Your task to perform on an android device: turn notification dots off Image 0: 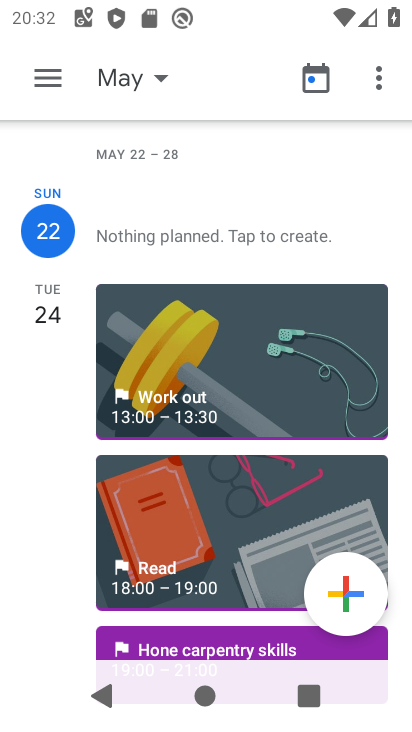
Step 0: press home button
Your task to perform on an android device: turn notification dots off Image 1: 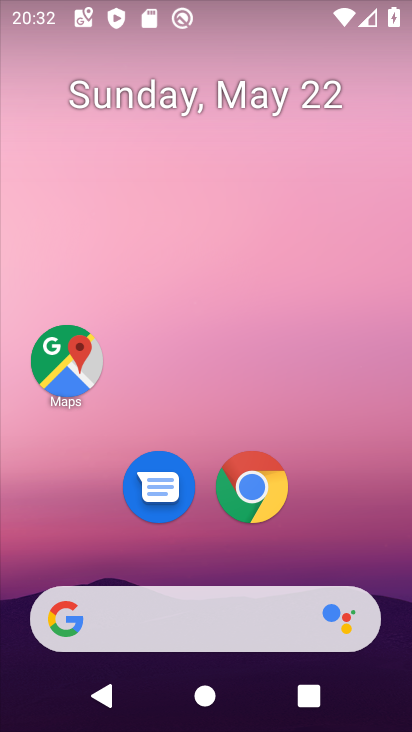
Step 1: drag from (205, 541) to (222, 89)
Your task to perform on an android device: turn notification dots off Image 2: 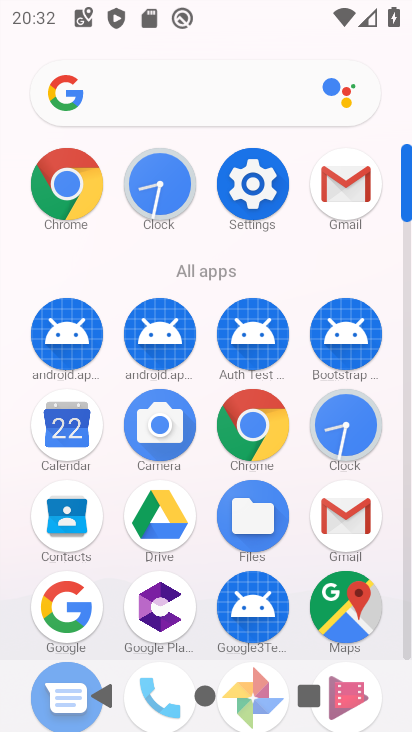
Step 2: click (246, 179)
Your task to perform on an android device: turn notification dots off Image 3: 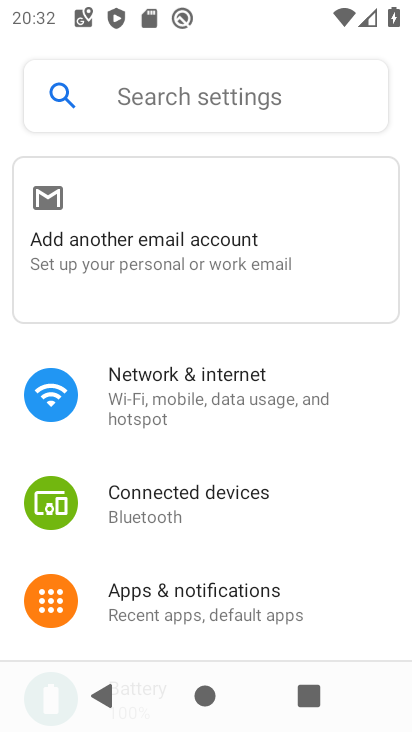
Step 3: click (168, 611)
Your task to perform on an android device: turn notification dots off Image 4: 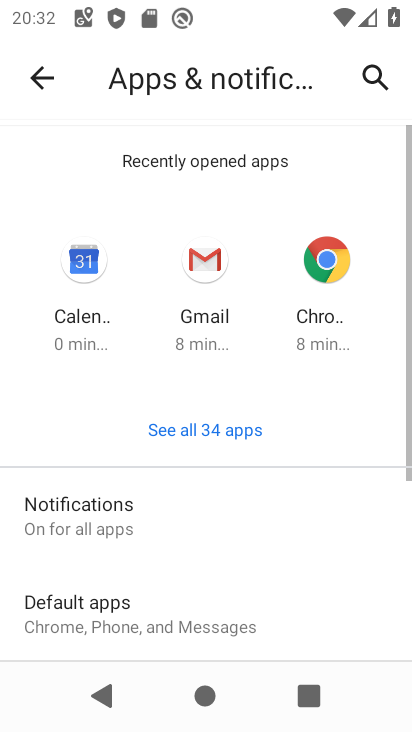
Step 4: click (125, 510)
Your task to perform on an android device: turn notification dots off Image 5: 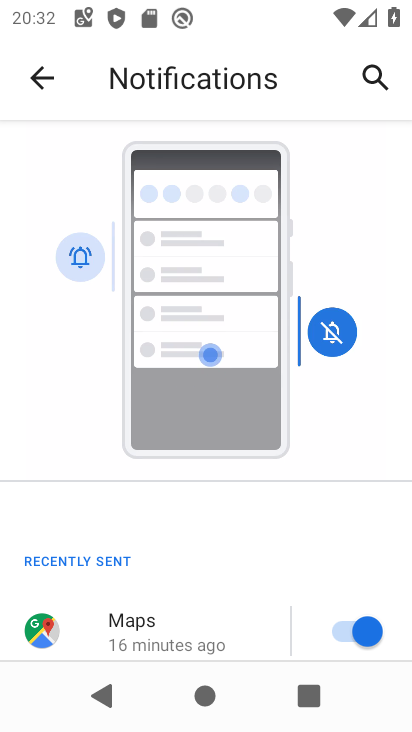
Step 5: drag from (125, 510) to (265, 61)
Your task to perform on an android device: turn notification dots off Image 6: 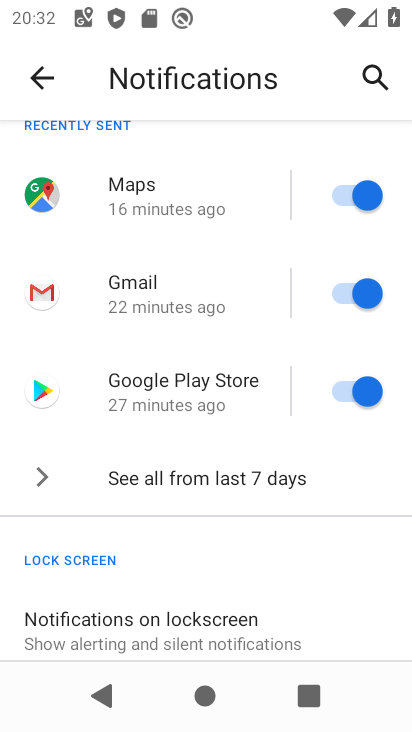
Step 6: drag from (261, 567) to (244, 230)
Your task to perform on an android device: turn notification dots off Image 7: 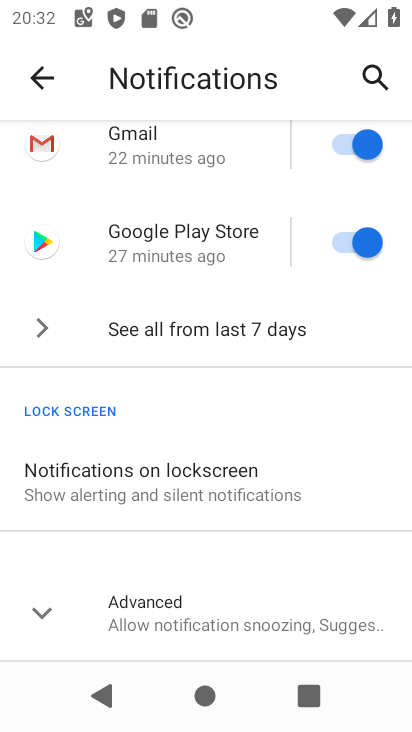
Step 7: click (233, 614)
Your task to perform on an android device: turn notification dots off Image 8: 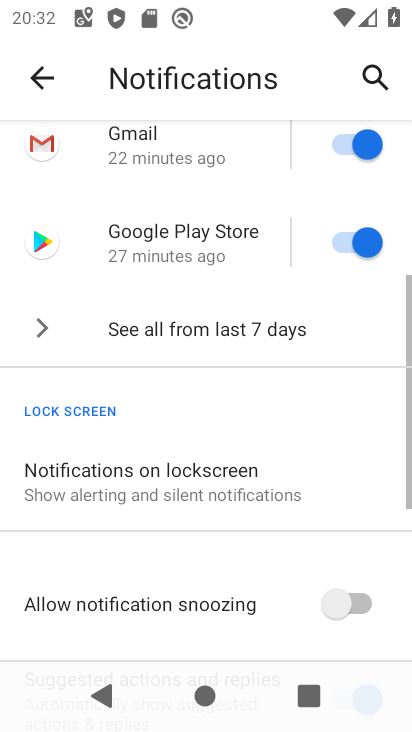
Step 8: drag from (233, 614) to (321, 190)
Your task to perform on an android device: turn notification dots off Image 9: 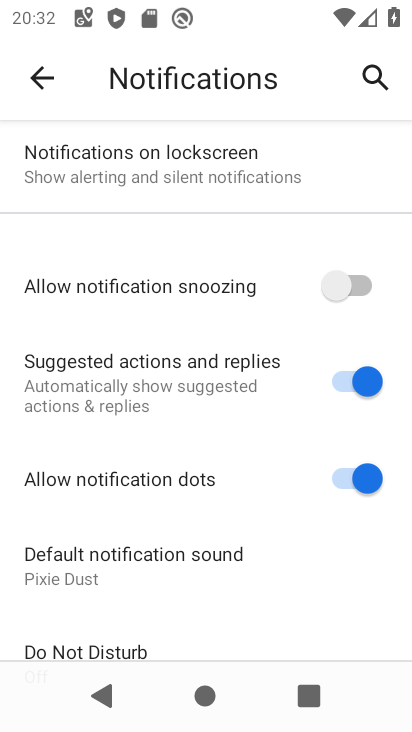
Step 9: click (347, 486)
Your task to perform on an android device: turn notification dots off Image 10: 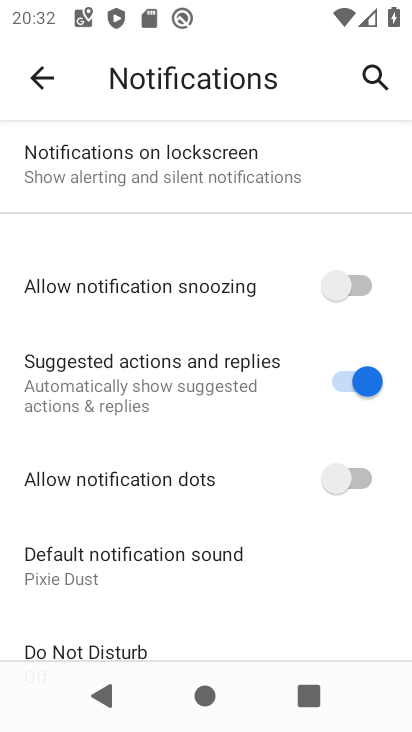
Step 10: task complete